Your task to perform on an android device: move an email to a new category in the gmail app Image 0: 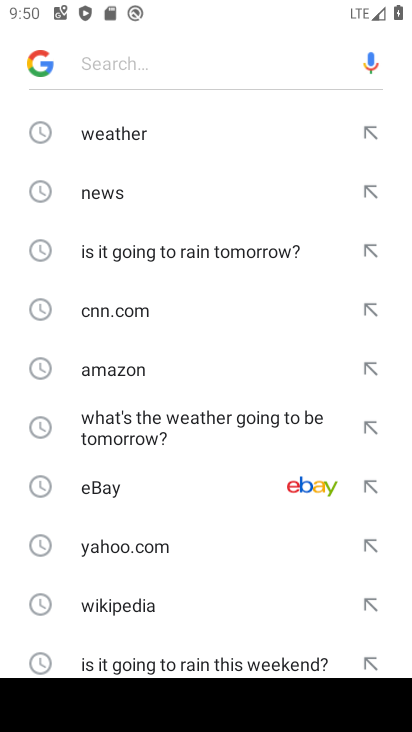
Step 0: press home button
Your task to perform on an android device: move an email to a new category in the gmail app Image 1: 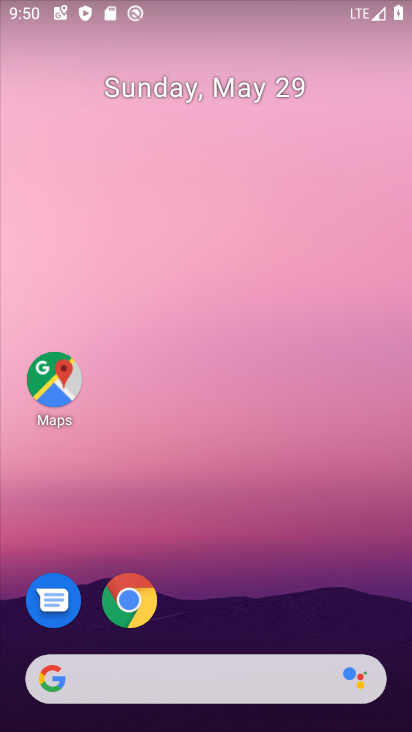
Step 1: drag from (232, 344) to (236, 134)
Your task to perform on an android device: move an email to a new category in the gmail app Image 2: 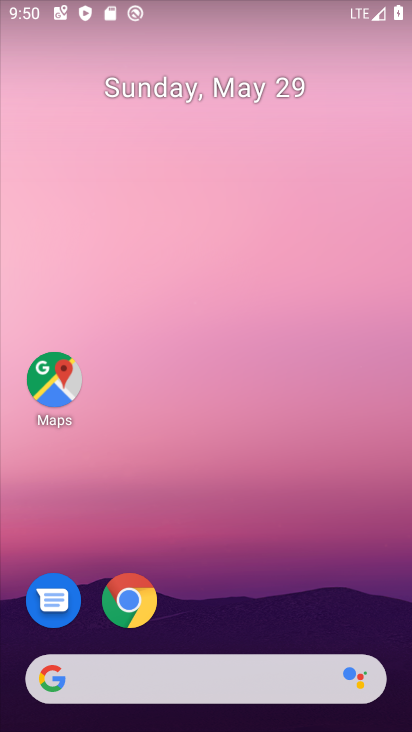
Step 2: drag from (272, 605) to (294, 289)
Your task to perform on an android device: move an email to a new category in the gmail app Image 3: 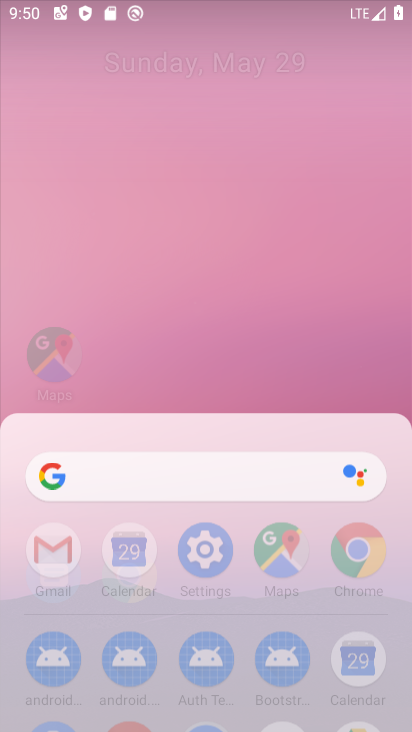
Step 3: drag from (308, 135) to (295, 50)
Your task to perform on an android device: move an email to a new category in the gmail app Image 4: 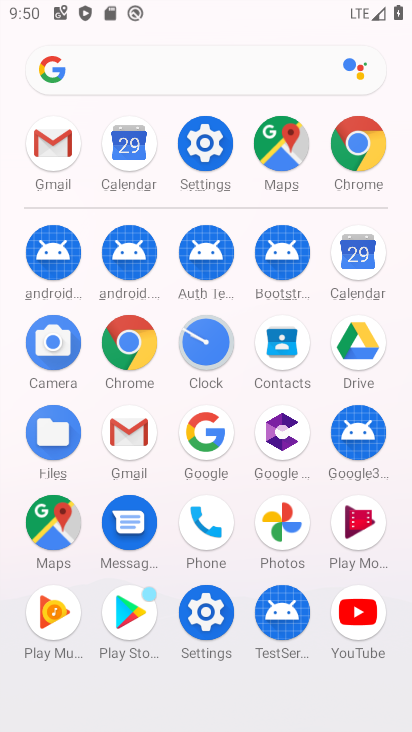
Step 4: click (50, 138)
Your task to perform on an android device: move an email to a new category in the gmail app Image 5: 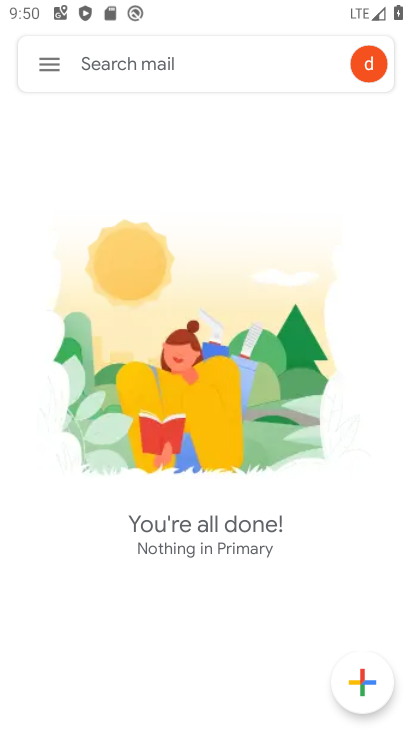
Step 5: task complete